Your task to perform on an android device: What's the weather? Image 0: 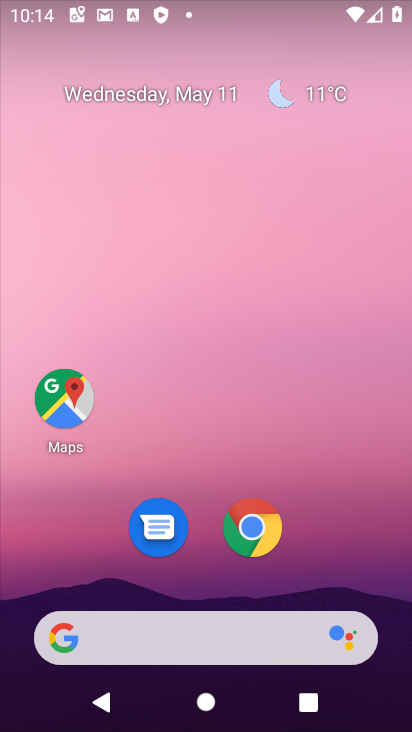
Step 0: click (336, 81)
Your task to perform on an android device: What's the weather? Image 1: 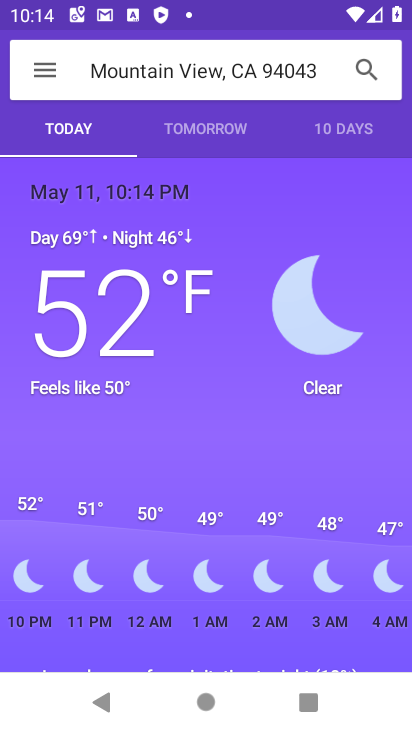
Step 1: task complete